Your task to perform on an android device: toggle notification dots Image 0: 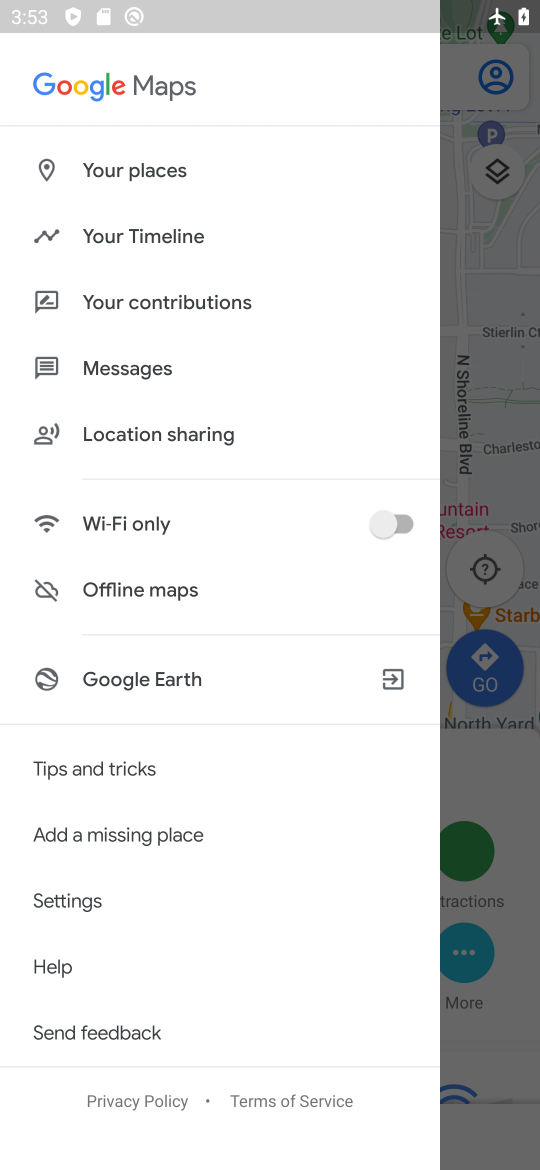
Step 0: task complete